Your task to perform on an android device: Play the last video I watched on Youtube Image 0: 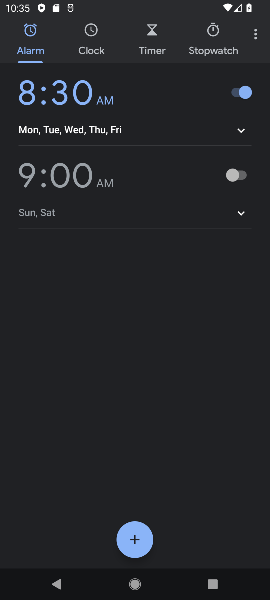
Step 0: press back button
Your task to perform on an android device: Play the last video I watched on Youtube Image 1: 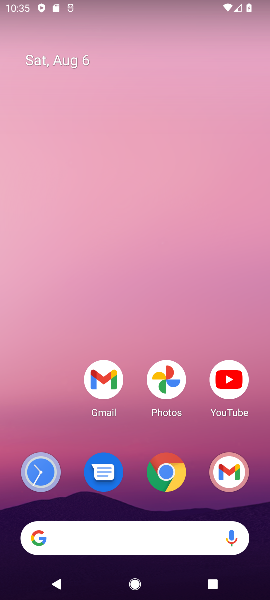
Step 1: click (221, 374)
Your task to perform on an android device: Play the last video I watched on Youtube Image 2: 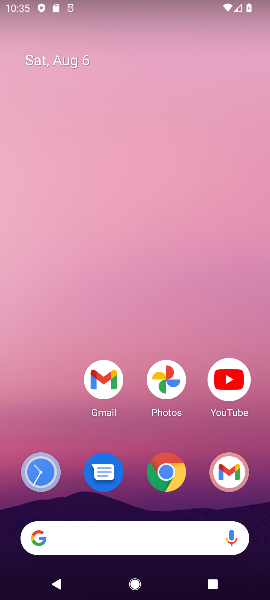
Step 2: click (221, 375)
Your task to perform on an android device: Play the last video I watched on Youtube Image 3: 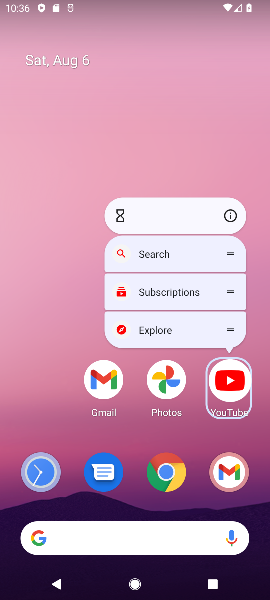
Step 3: click (230, 379)
Your task to perform on an android device: Play the last video I watched on Youtube Image 4: 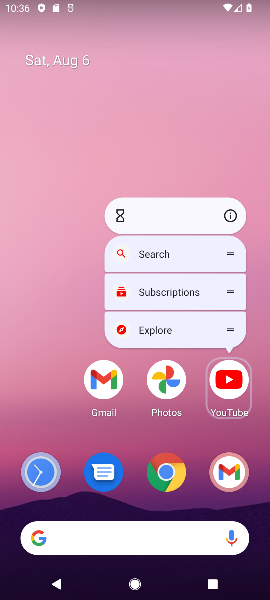
Step 4: click (238, 388)
Your task to perform on an android device: Play the last video I watched on Youtube Image 5: 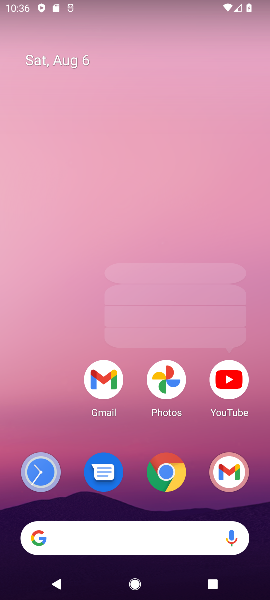
Step 5: click (238, 386)
Your task to perform on an android device: Play the last video I watched on Youtube Image 6: 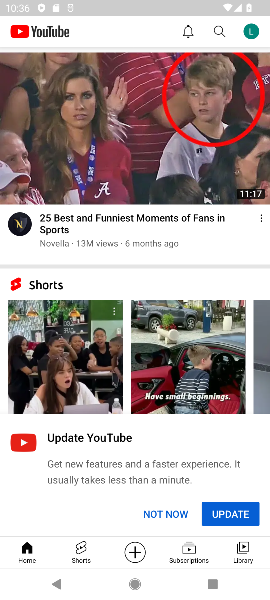
Step 6: task complete